Your task to perform on an android device: turn notification dots off Image 0: 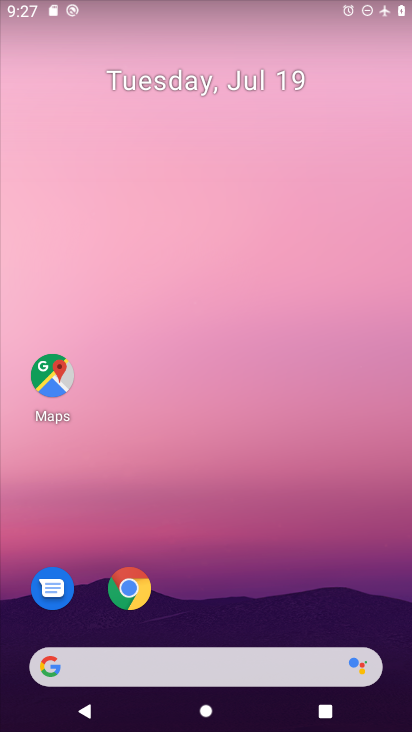
Step 0: drag from (298, 553) to (329, 49)
Your task to perform on an android device: turn notification dots off Image 1: 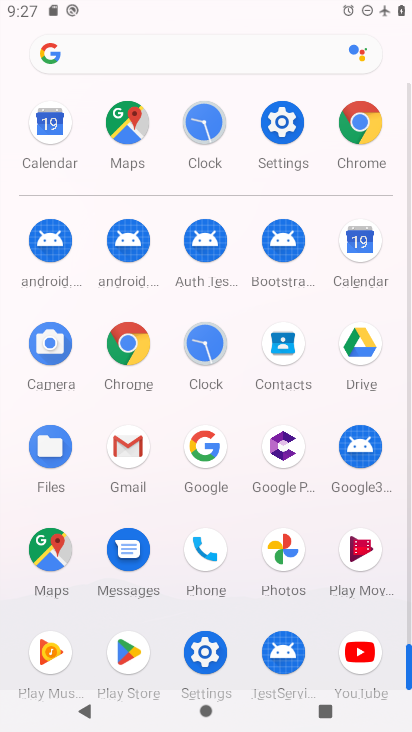
Step 1: click (276, 137)
Your task to perform on an android device: turn notification dots off Image 2: 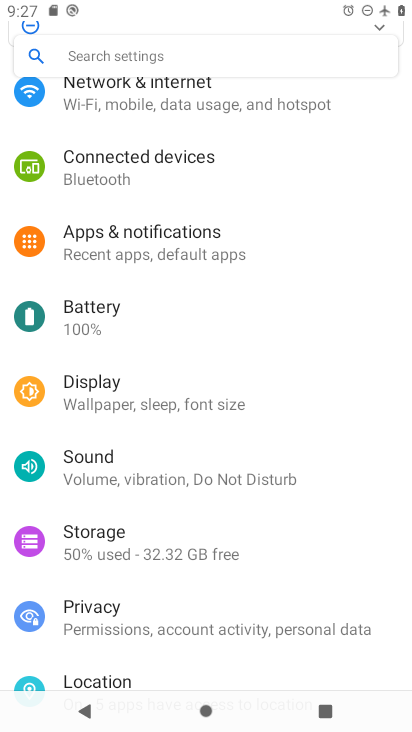
Step 2: drag from (328, 242) to (346, 383)
Your task to perform on an android device: turn notification dots off Image 3: 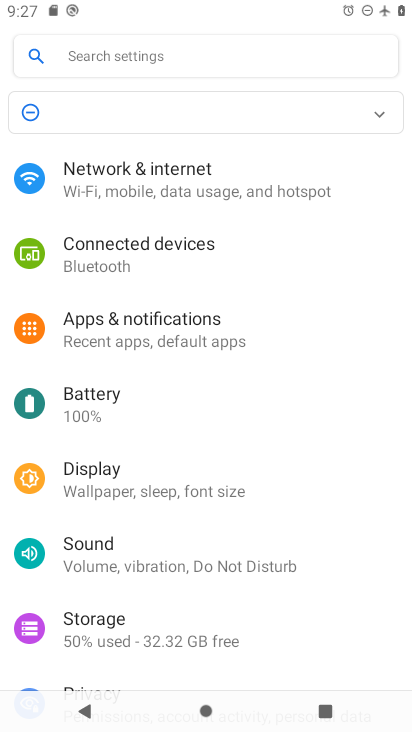
Step 3: drag from (356, 241) to (354, 376)
Your task to perform on an android device: turn notification dots off Image 4: 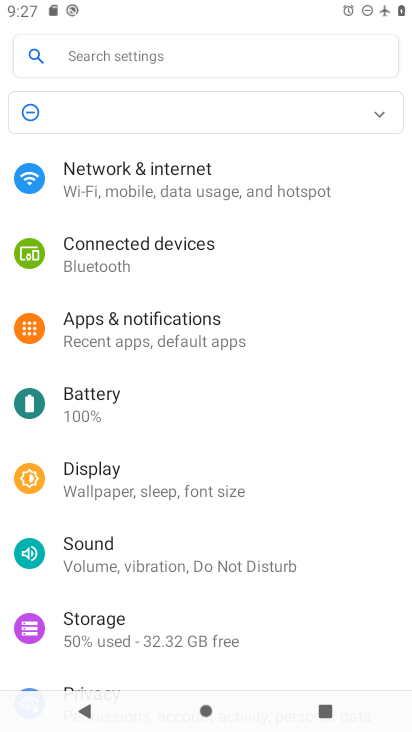
Step 4: drag from (352, 476) to (348, 344)
Your task to perform on an android device: turn notification dots off Image 5: 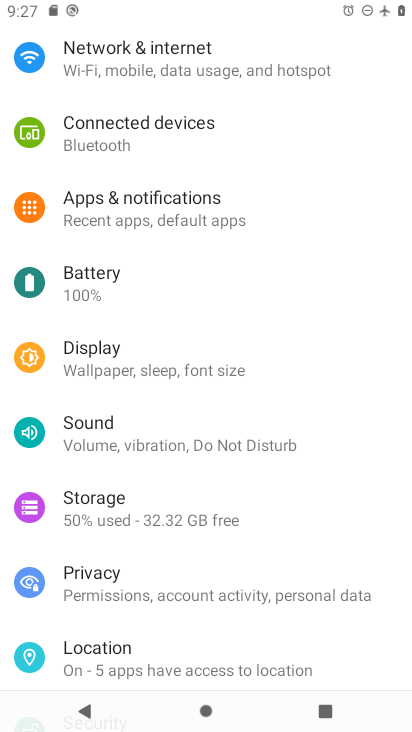
Step 5: drag from (352, 506) to (349, 335)
Your task to perform on an android device: turn notification dots off Image 6: 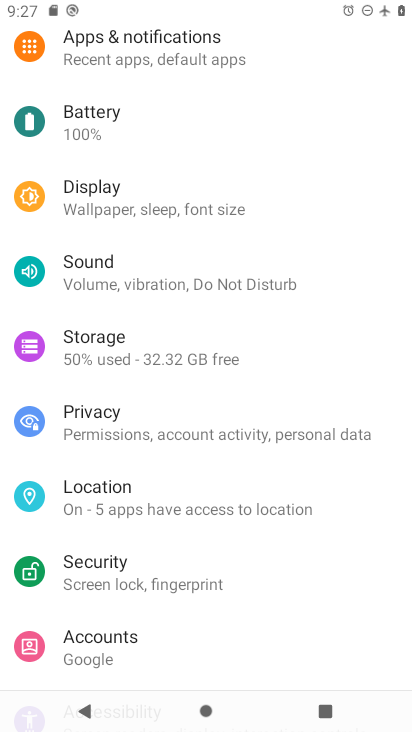
Step 6: drag from (358, 513) to (362, 386)
Your task to perform on an android device: turn notification dots off Image 7: 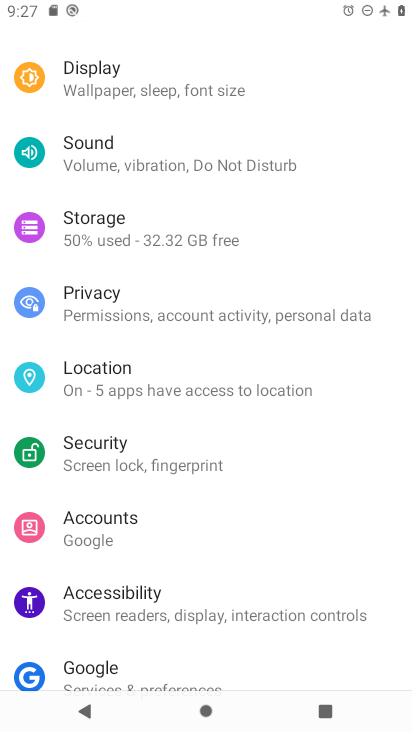
Step 7: drag from (350, 364) to (361, 468)
Your task to perform on an android device: turn notification dots off Image 8: 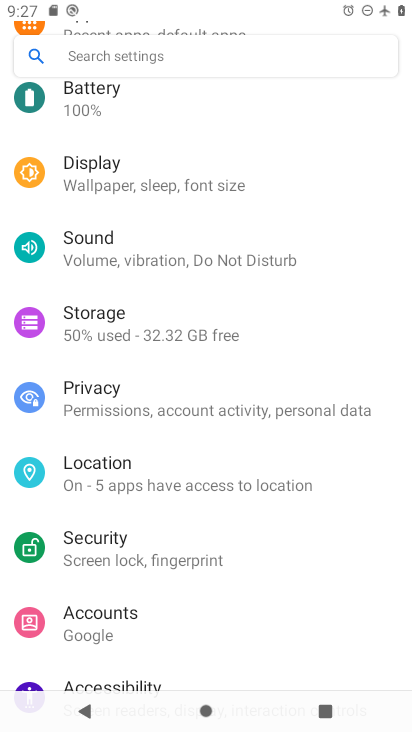
Step 8: drag from (356, 277) to (361, 395)
Your task to perform on an android device: turn notification dots off Image 9: 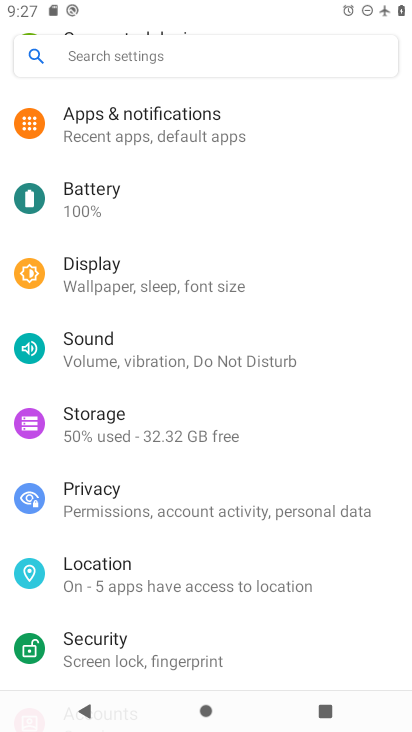
Step 9: drag from (364, 254) to (375, 433)
Your task to perform on an android device: turn notification dots off Image 10: 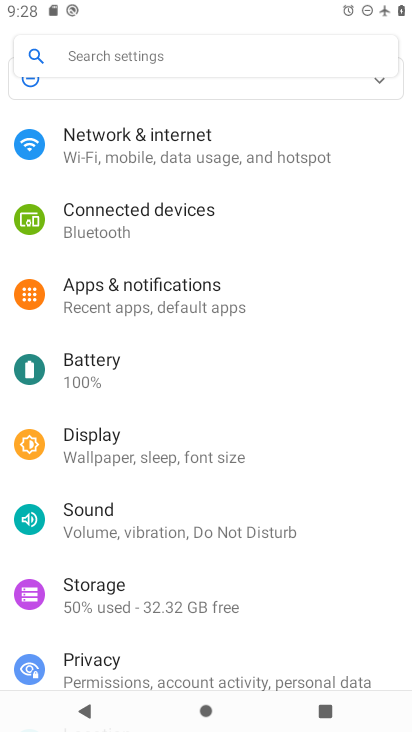
Step 10: drag from (358, 252) to (360, 405)
Your task to perform on an android device: turn notification dots off Image 11: 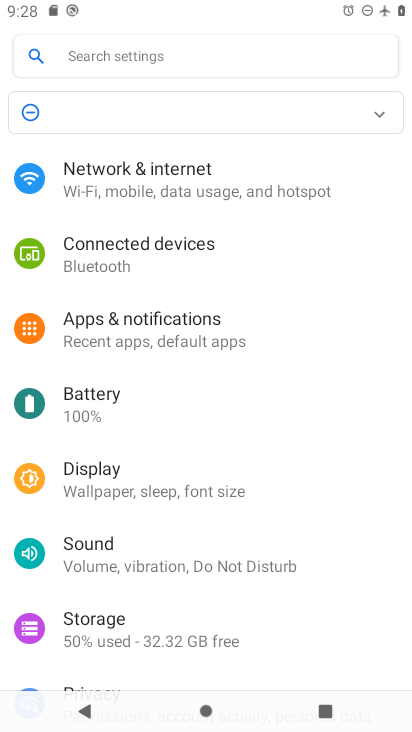
Step 11: drag from (335, 244) to (354, 383)
Your task to perform on an android device: turn notification dots off Image 12: 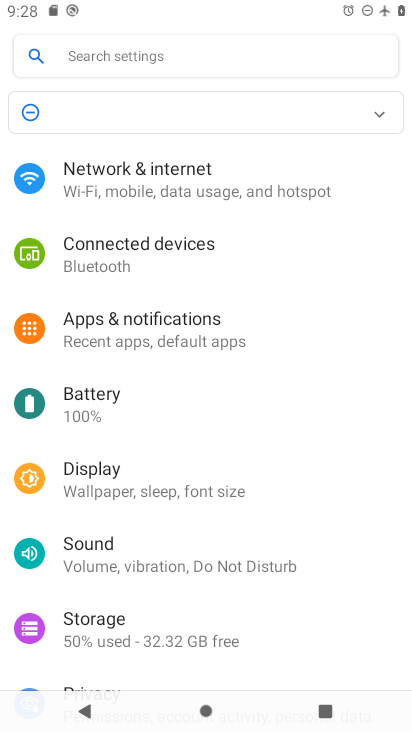
Step 12: click (237, 321)
Your task to perform on an android device: turn notification dots off Image 13: 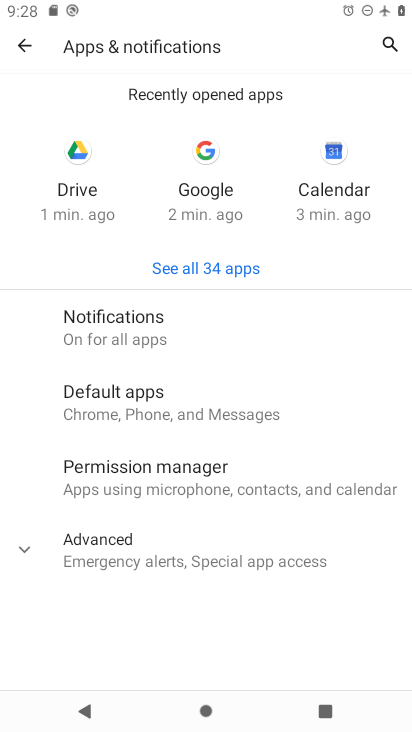
Step 13: click (153, 331)
Your task to perform on an android device: turn notification dots off Image 14: 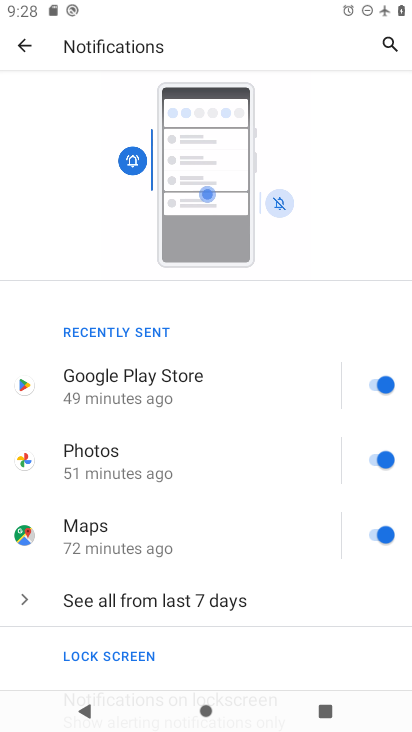
Step 14: drag from (237, 480) to (266, 279)
Your task to perform on an android device: turn notification dots off Image 15: 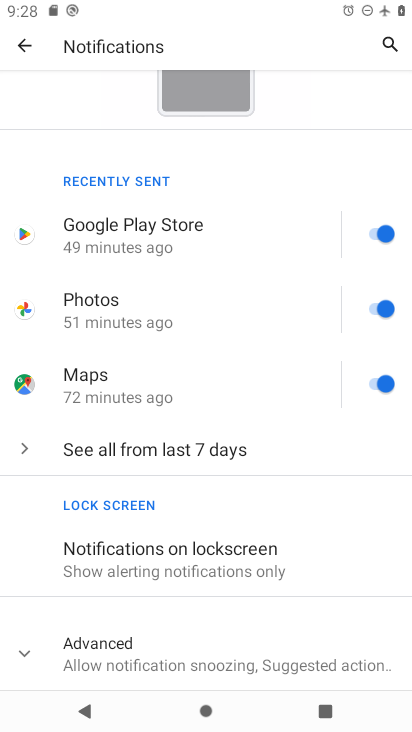
Step 15: click (279, 643)
Your task to perform on an android device: turn notification dots off Image 16: 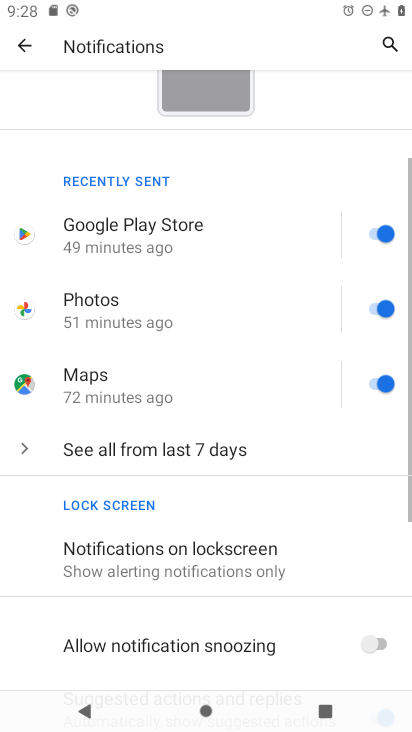
Step 16: task complete